Your task to perform on an android device: show emergency info Image 0: 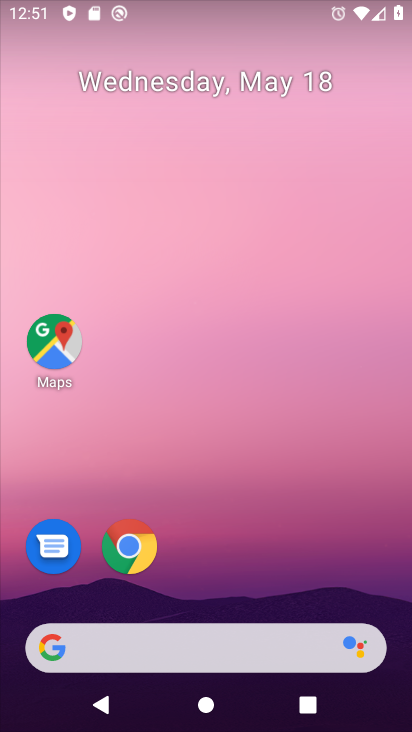
Step 0: drag from (224, 568) to (238, 48)
Your task to perform on an android device: show emergency info Image 1: 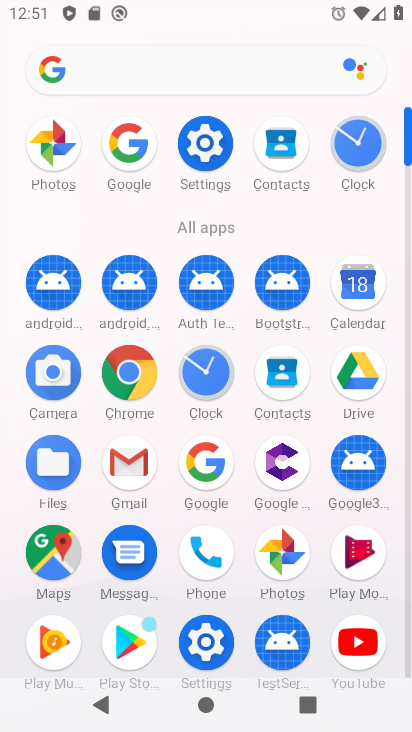
Step 1: click (194, 171)
Your task to perform on an android device: show emergency info Image 2: 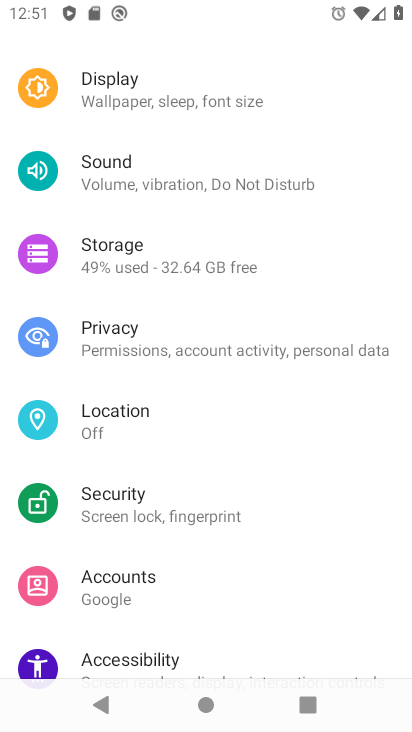
Step 2: drag from (169, 539) to (215, 33)
Your task to perform on an android device: show emergency info Image 3: 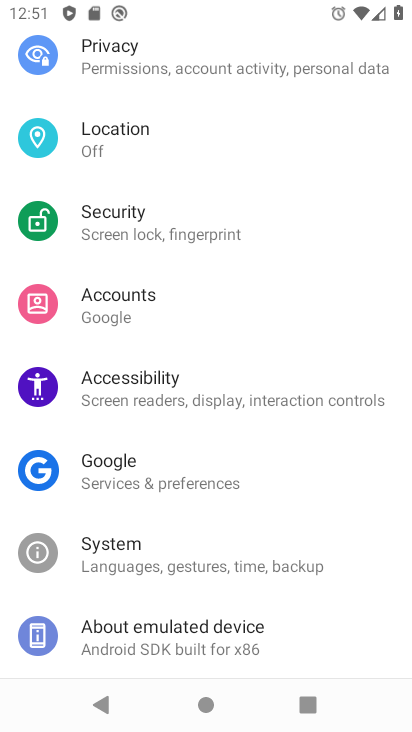
Step 3: drag from (178, 587) to (203, 173)
Your task to perform on an android device: show emergency info Image 4: 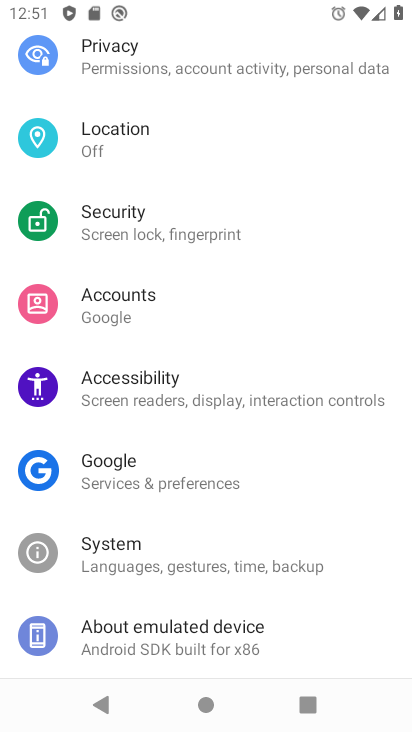
Step 4: click (177, 638)
Your task to perform on an android device: show emergency info Image 5: 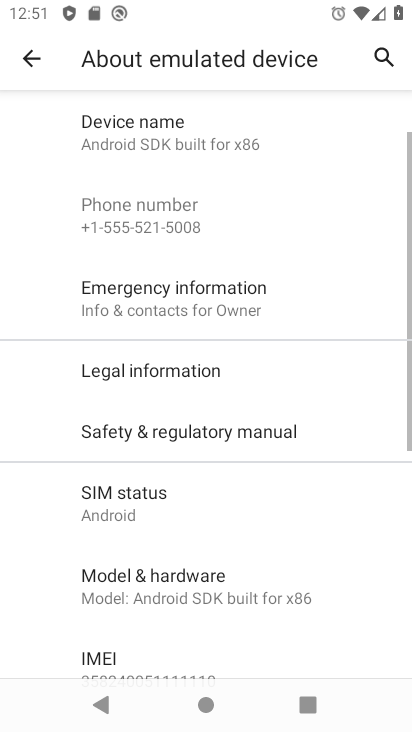
Step 5: click (188, 289)
Your task to perform on an android device: show emergency info Image 6: 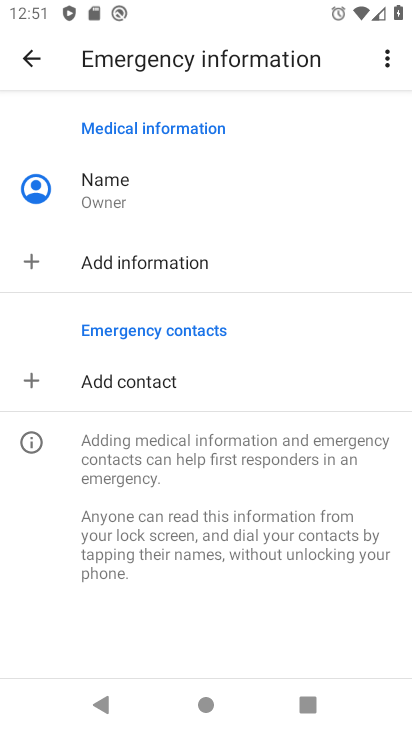
Step 6: task complete